Your task to perform on an android device: change notifications settings Image 0: 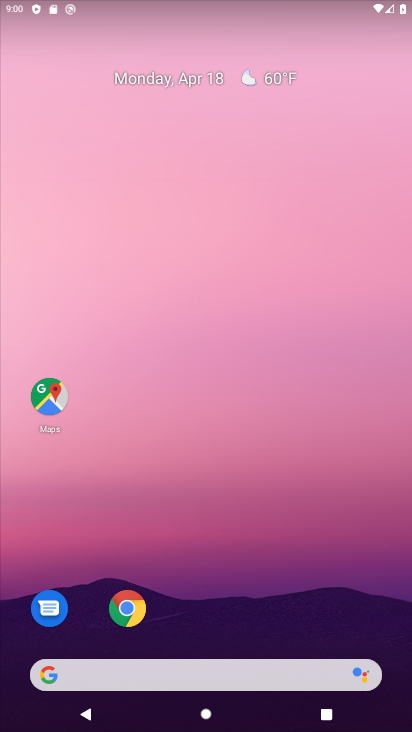
Step 0: drag from (325, 513) to (329, 107)
Your task to perform on an android device: change notifications settings Image 1: 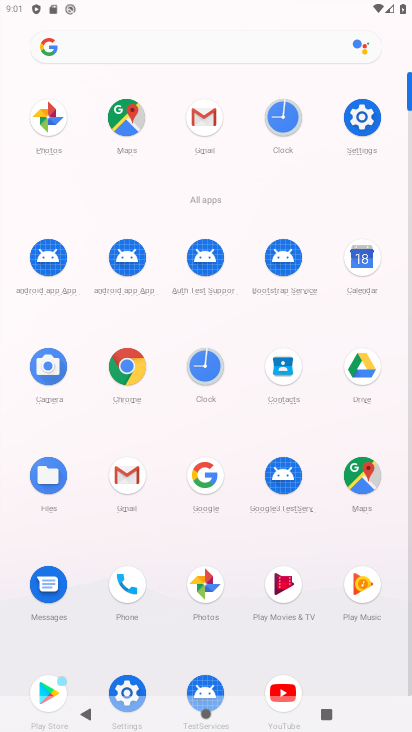
Step 1: click (370, 125)
Your task to perform on an android device: change notifications settings Image 2: 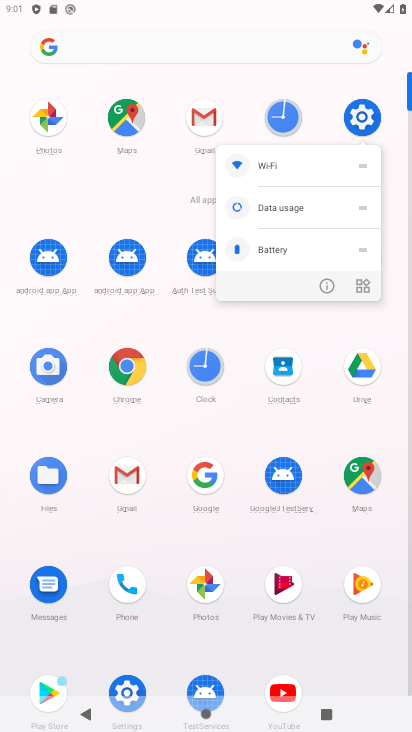
Step 2: click (368, 124)
Your task to perform on an android device: change notifications settings Image 3: 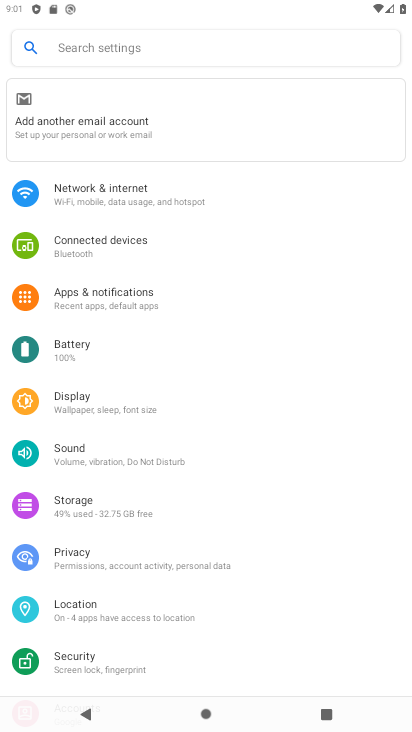
Step 3: click (119, 294)
Your task to perform on an android device: change notifications settings Image 4: 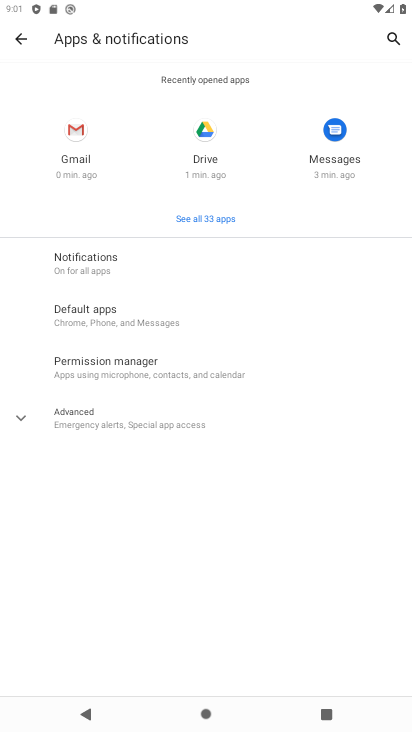
Step 4: click (82, 259)
Your task to perform on an android device: change notifications settings Image 5: 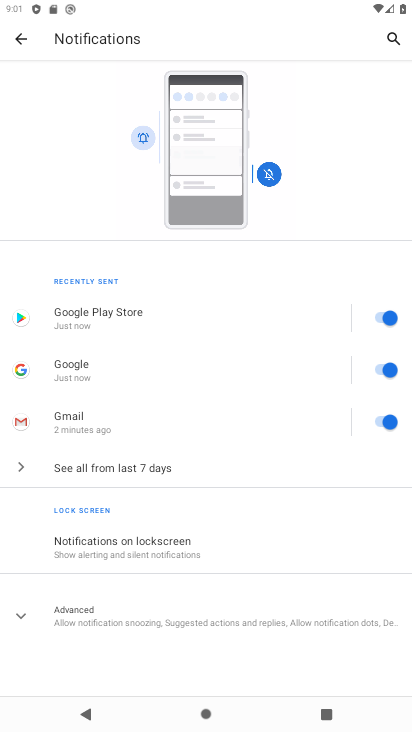
Step 5: click (389, 317)
Your task to perform on an android device: change notifications settings Image 6: 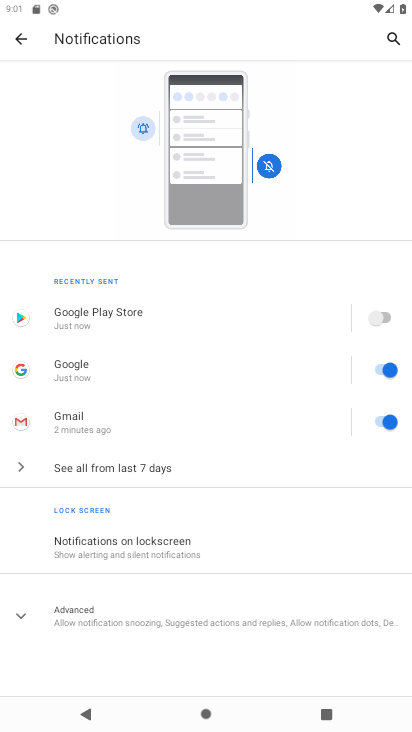
Step 6: click (380, 370)
Your task to perform on an android device: change notifications settings Image 7: 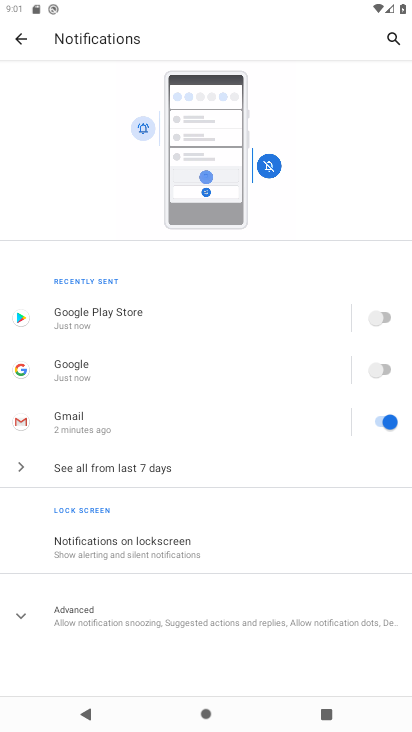
Step 7: task complete